Your task to perform on an android device: Open notification settings Image 0: 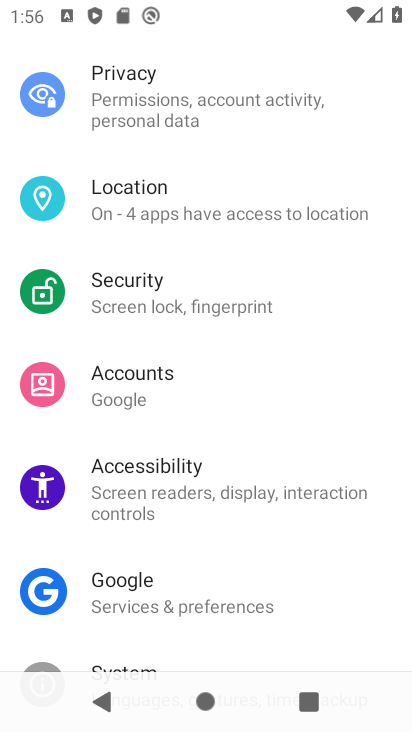
Step 0: drag from (245, 257) to (236, 592)
Your task to perform on an android device: Open notification settings Image 1: 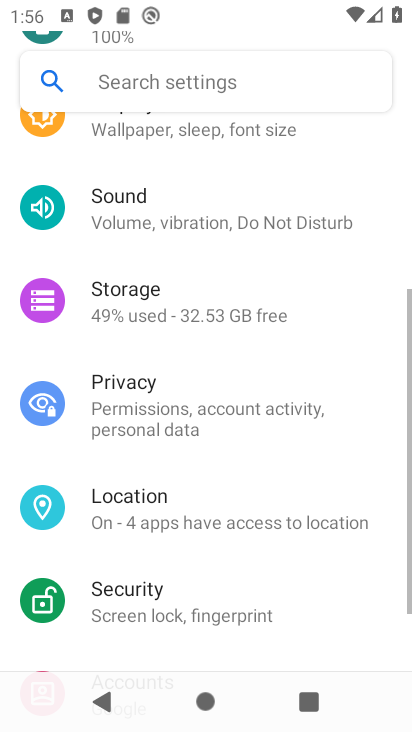
Step 1: drag from (247, 213) to (245, 568)
Your task to perform on an android device: Open notification settings Image 2: 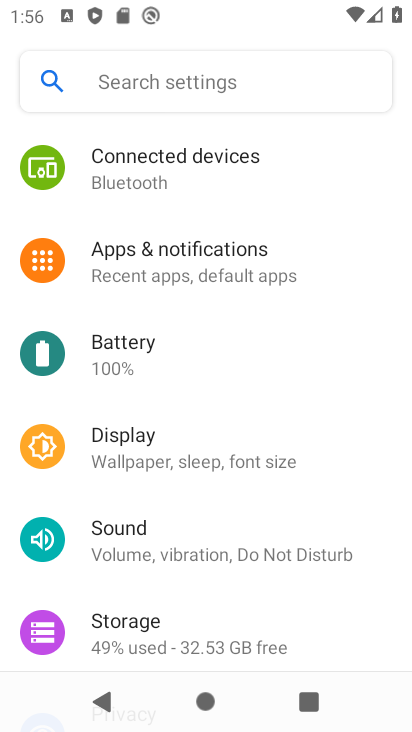
Step 2: click (242, 252)
Your task to perform on an android device: Open notification settings Image 3: 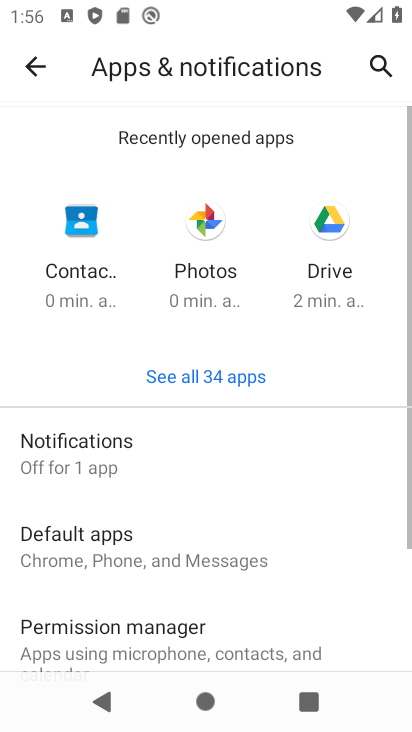
Step 3: click (173, 452)
Your task to perform on an android device: Open notification settings Image 4: 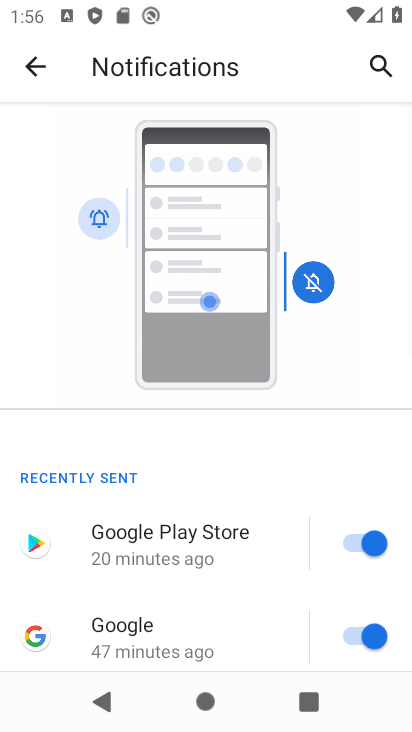
Step 4: task complete